Your task to perform on an android device: open app "Airtel Thanks" (install if not already installed) Image 0: 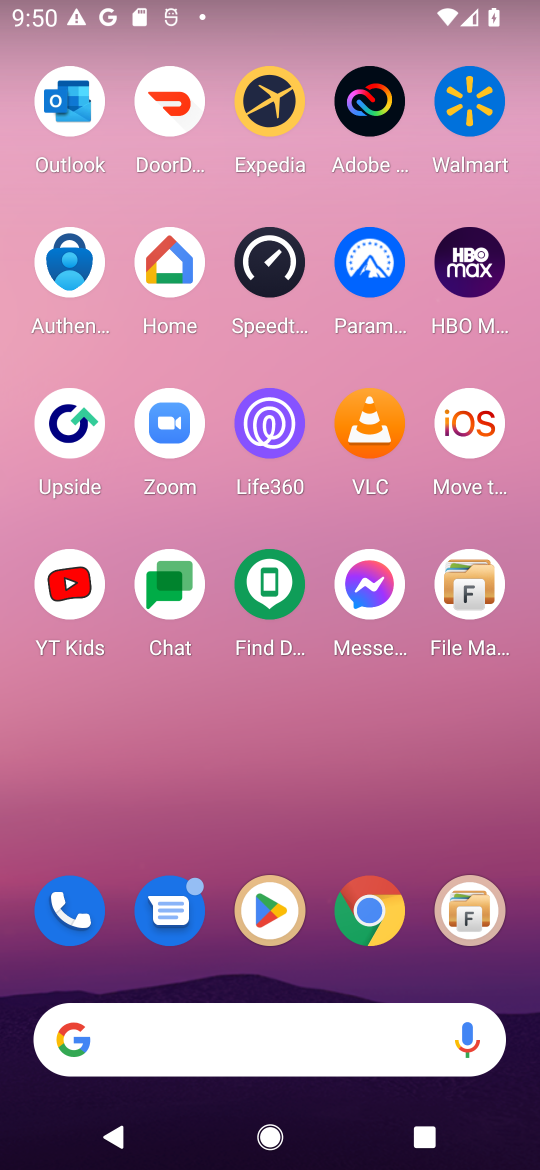
Step 0: click (258, 906)
Your task to perform on an android device: open app "Airtel Thanks" (install if not already installed) Image 1: 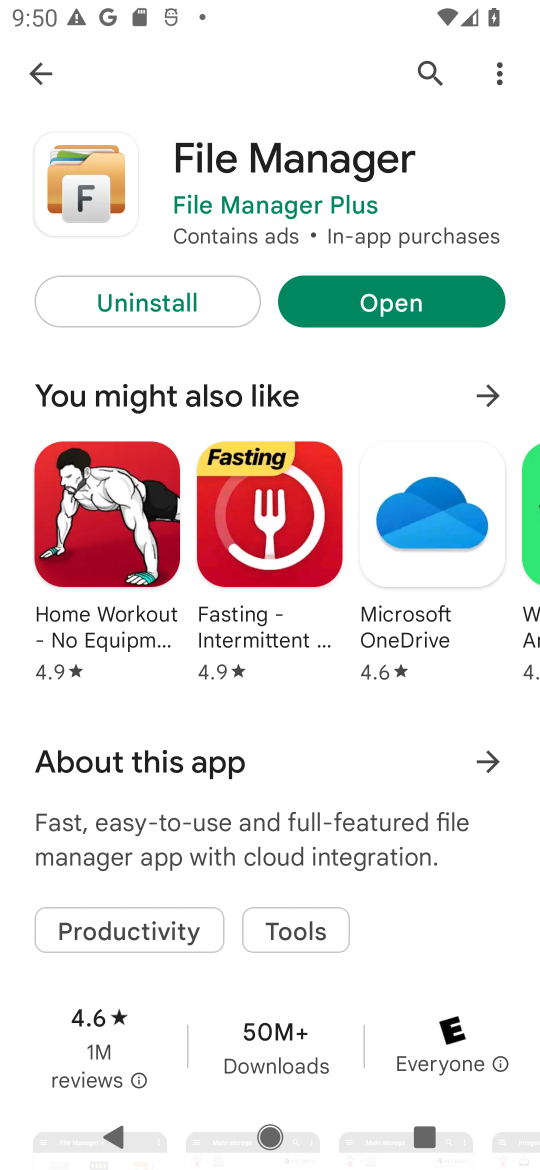
Step 1: click (442, 73)
Your task to perform on an android device: open app "Airtel Thanks" (install if not already installed) Image 2: 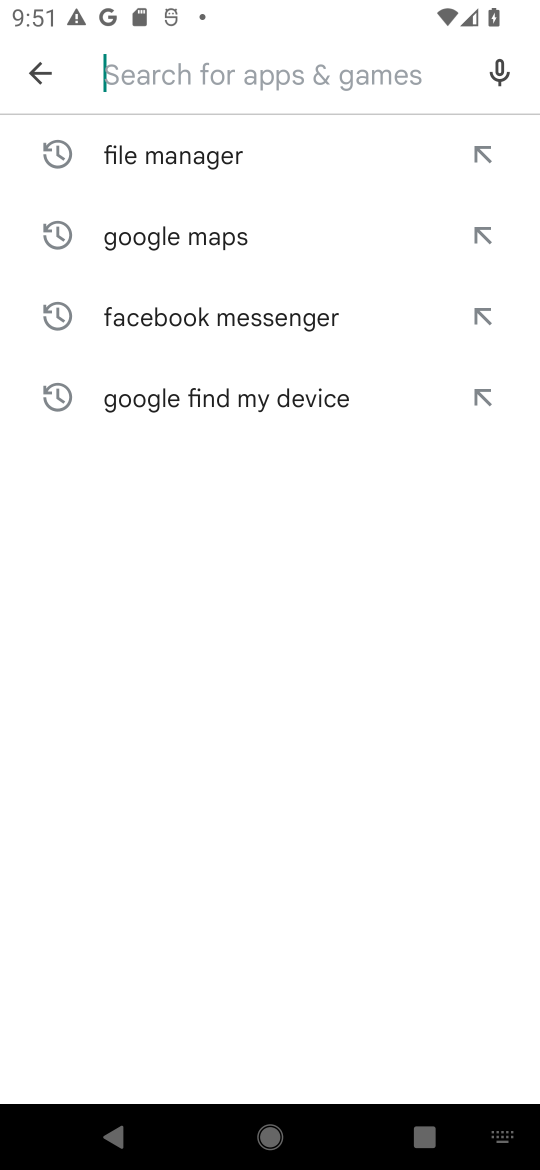
Step 2: type "Airtel Thanks"
Your task to perform on an android device: open app "Airtel Thanks" (install if not already installed) Image 3: 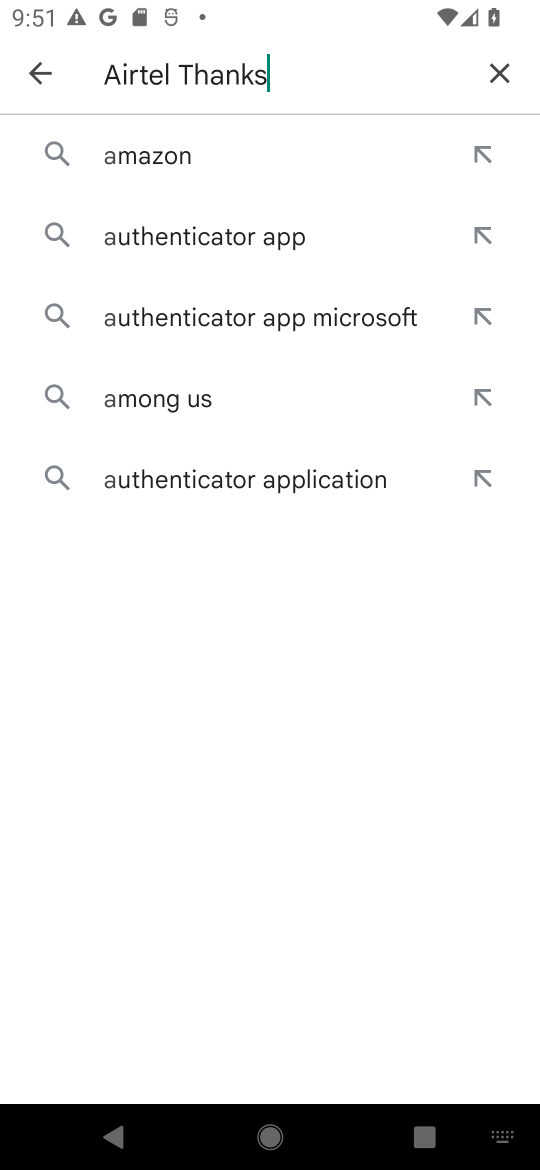
Step 3: type ""
Your task to perform on an android device: open app "Airtel Thanks" (install if not already installed) Image 4: 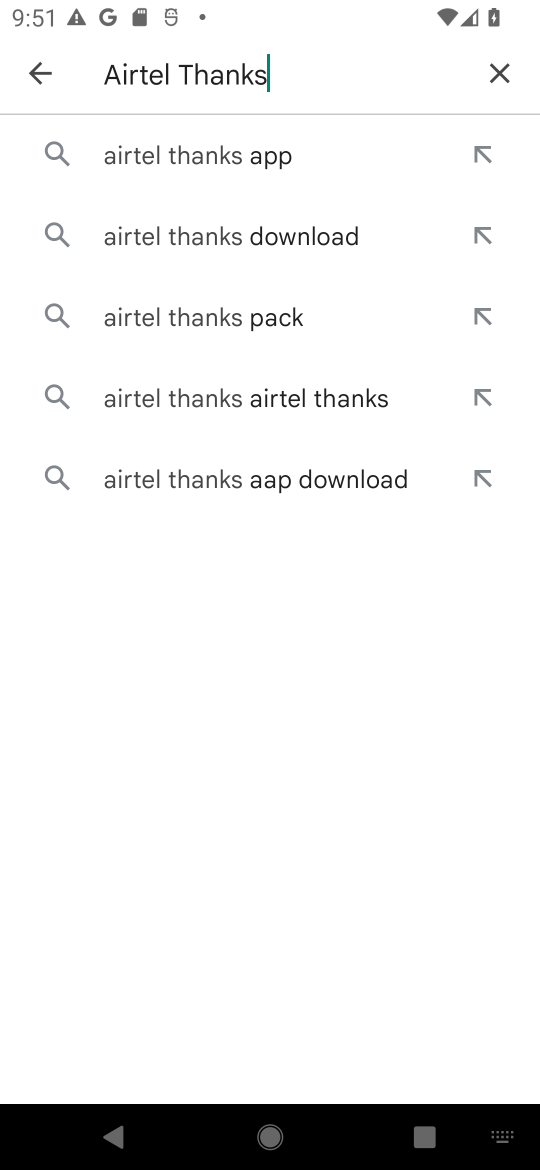
Step 4: click (187, 165)
Your task to perform on an android device: open app "Airtel Thanks" (install if not already installed) Image 5: 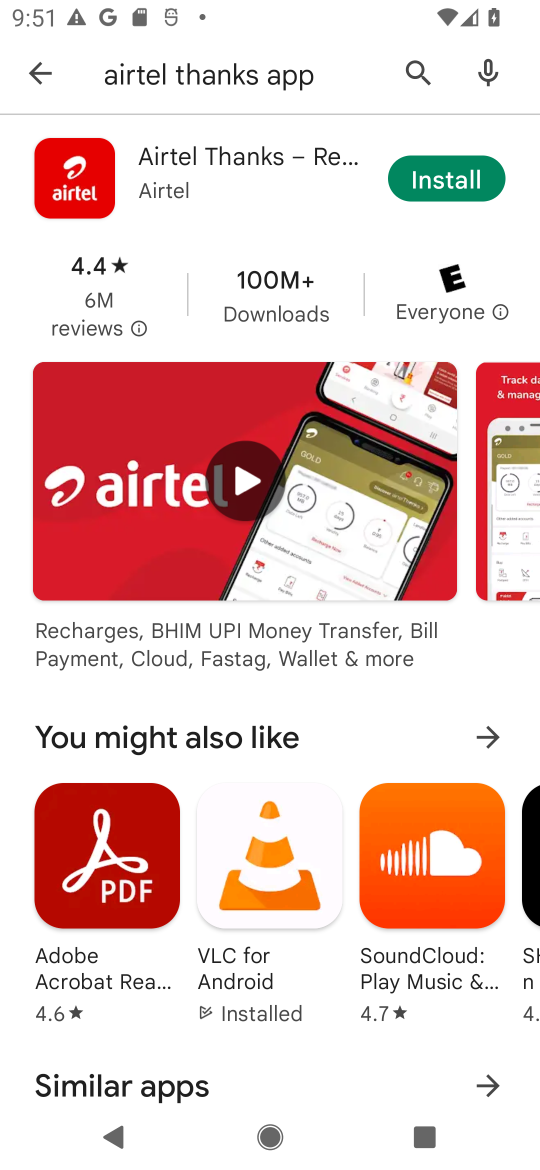
Step 5: click (479, 184)
Your task to perform on an android device: open app "Airtel Thanks" (install if not already installed) Image 6: 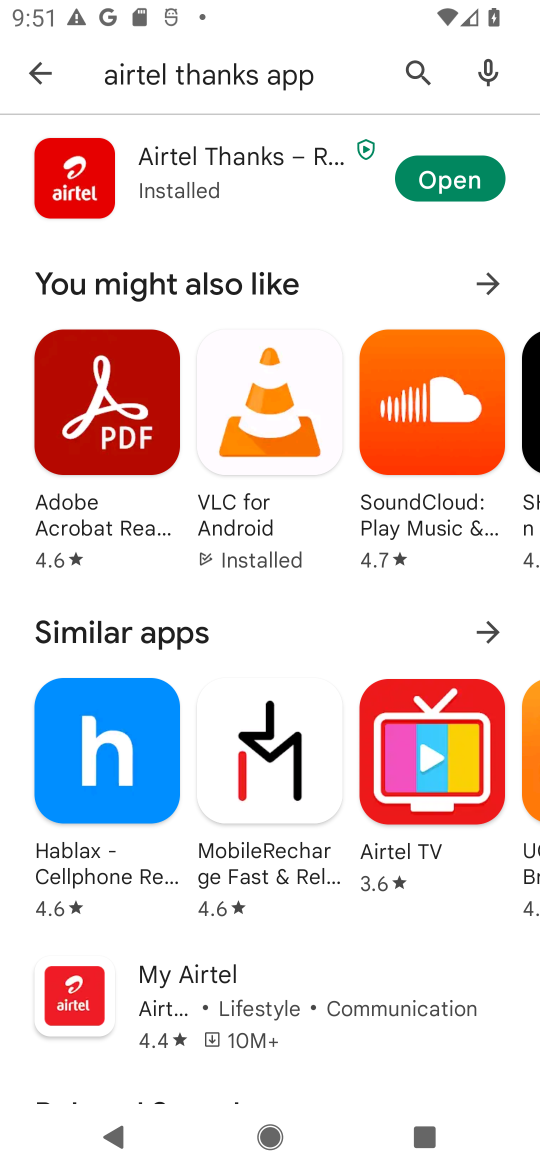
Step 6: click (437, 185)
Your task to perform on an android device: open app "Airtel Thanks" (install if not already installed) Image 7: 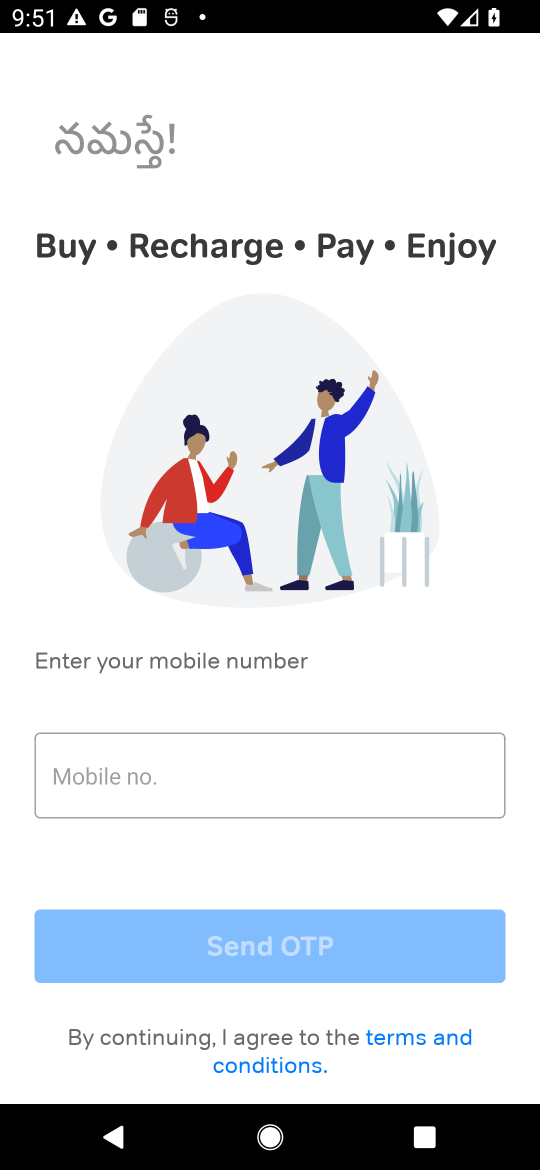
Step 7: task complete